Your task to perform on an android device: toggle data saver in the chrome app Image 0: 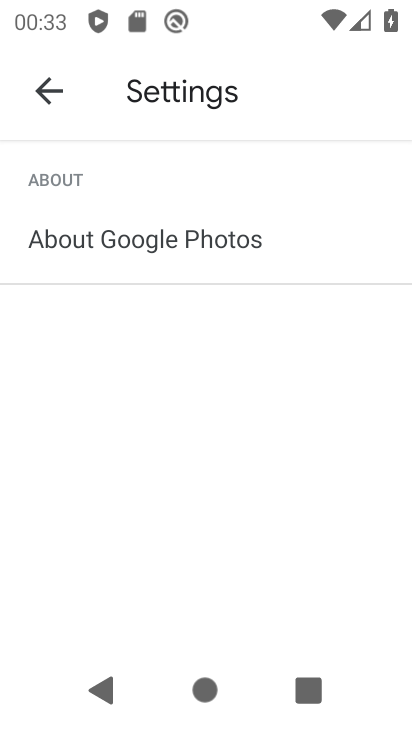
Step 0: press home button
Your task to perform on an android device: toggle data saver in the chrome app Image 1: 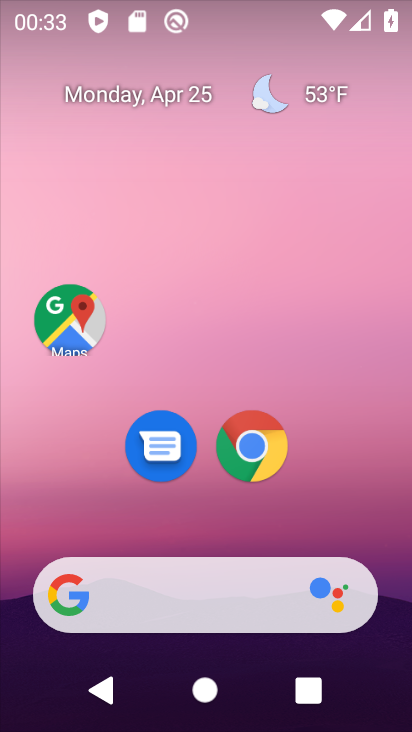
Step 1: drag from (174, 498) to (200, 7)
Your task to perform on an android device: toggle data saver in the chrome app Image 2: 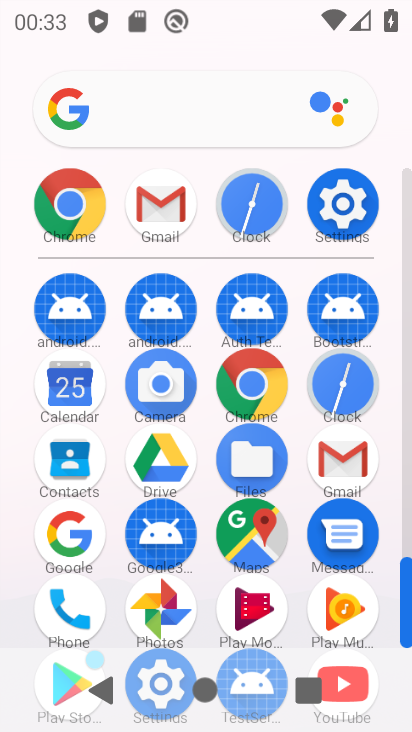
Step 2: click (249, 384)
Your task to perform on an android device: toggle data saver in the chrome app Image 3: 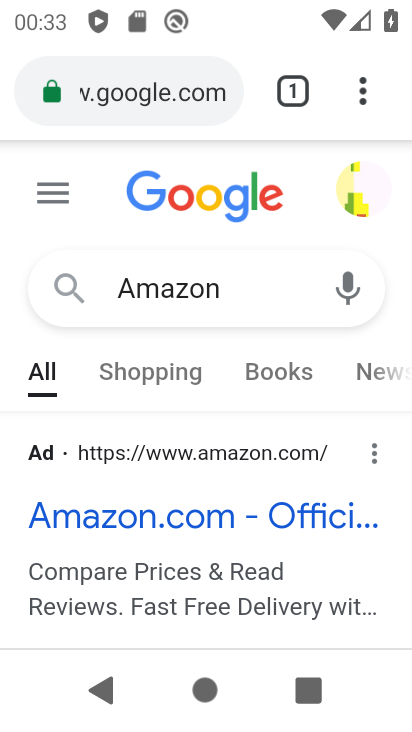
Step 3: click (361, 88)
Your task to perform on an android device: toggle data saver in the chrome app Image 4: 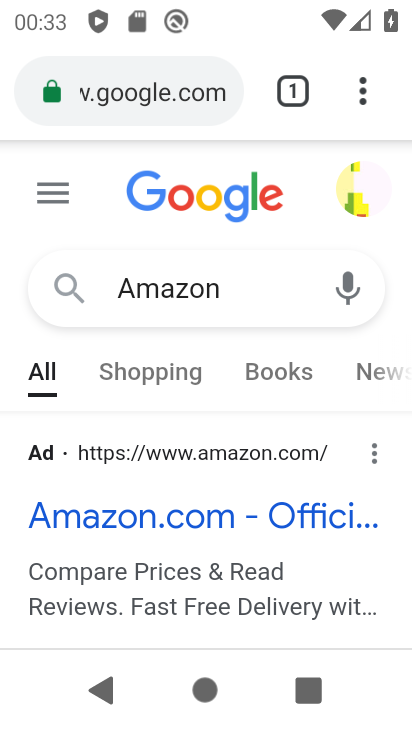
Step 4: click (360, 91)
Your task to perform on an android device: toggle data saver in the chrome app Image 5: 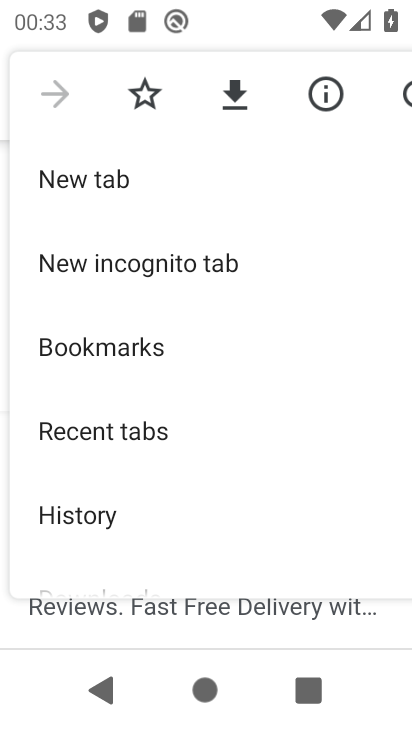
Step 5: drag from (126, 530) to (181, 139)
Your task to perform on an android device: toggle data saver in the chrome app Image 6: 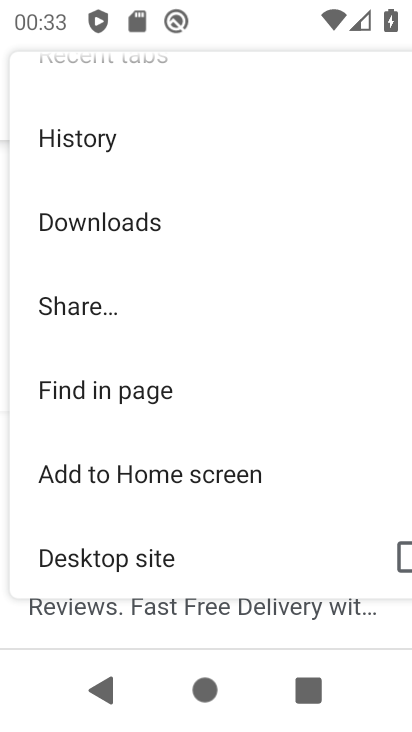
Step 6: drag from (156, 523) to (225, 121)
Your task to perform on an android device: toggle data saver in the chrome app Image 7: 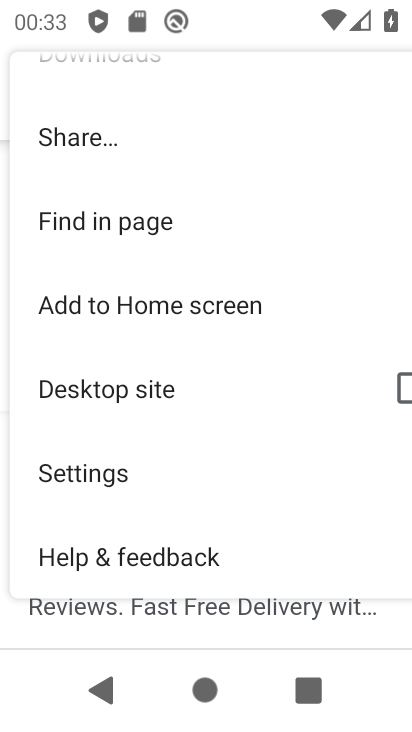
Step 7: click (116, 478)
Your task to perform on an android device: toggle data saver in the chrome app Image 8: 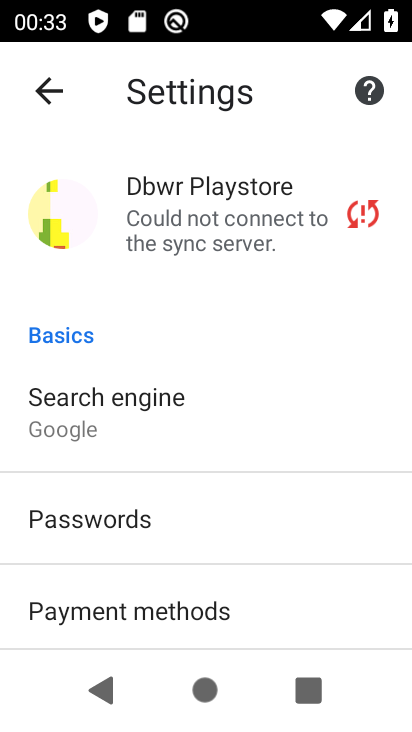
Step 8: drag from (172, 356) to (242, 141)
Your task to perform on an android device: toggle data saver in the chrome app Image 9: 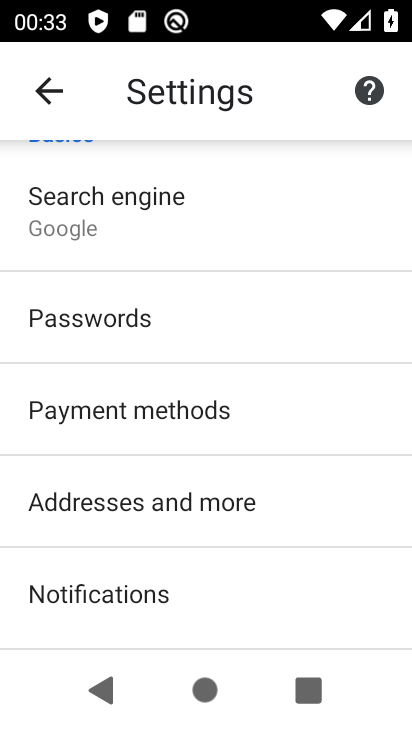
Step 9: drag from (145, 548) to (208, 175)
Your task to perform on an android device: toggle data saver in the chrome app Image 10: 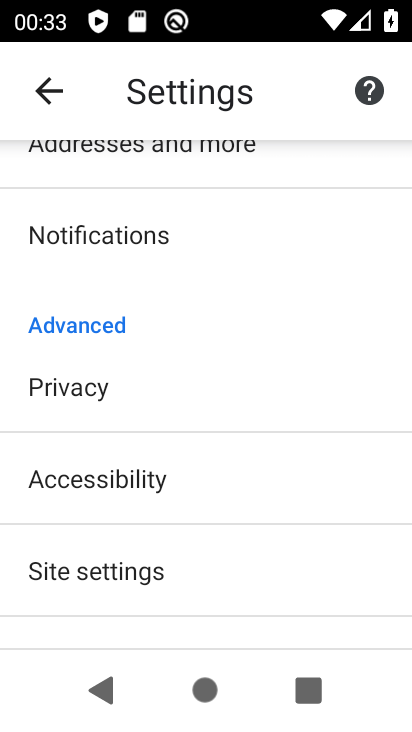
Step 10: drag from (103, 560) to (162, 248)
Your task to perform on an android device: toggle data saver in the chrome app Image 11: 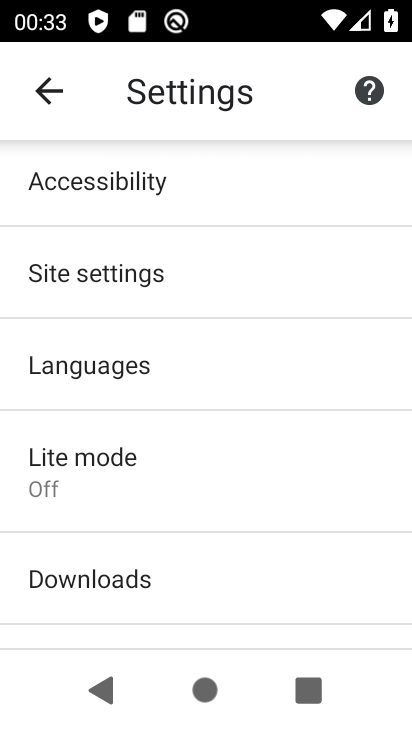
Step 11: click (78, 473)
Your task to perform on an android device: toggle data saver in the chrome app Image 12: 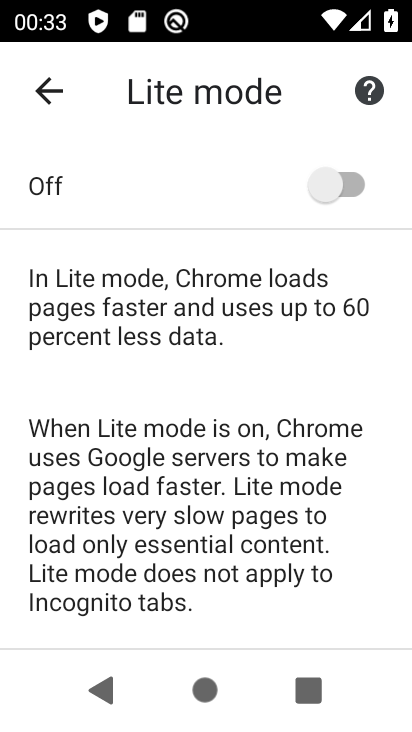
Step 12: click (355, 191)
Your task to perform on an android device: toggle data saver in the chrome app Image 13: 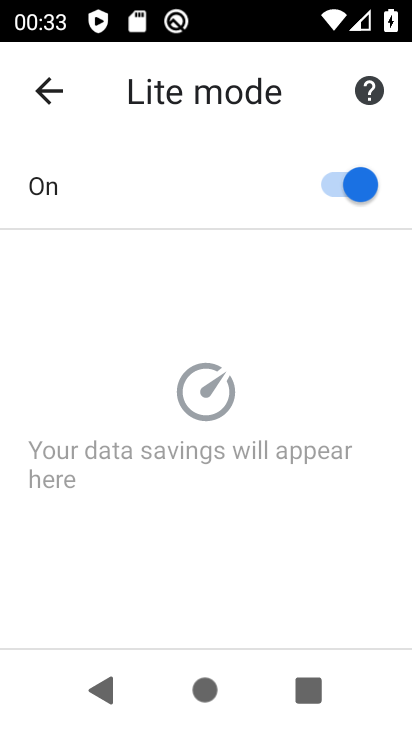
Step 13: task complete